Your task to perform on an android device: snooze an email in the gmail app Image 0: 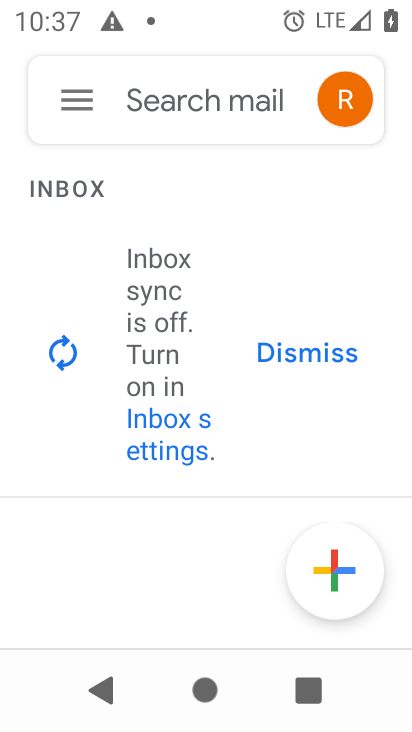
Step 0: press home button
Your task to perform on an android device: snooze an email in the gmail app Image 1: 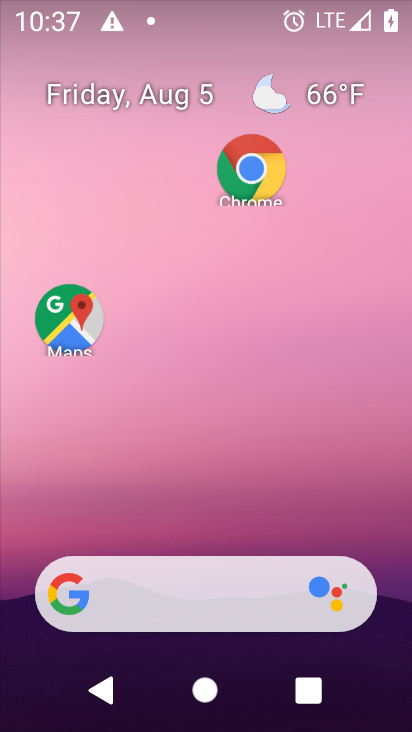
Step 1: drag from (209, 516) to (151, 131)
Your task to perform on an android device: snooze an email in the gmail app Image 2: 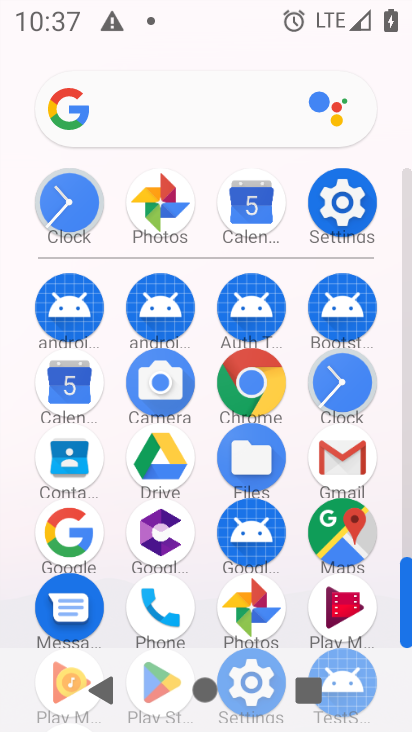
Step 2: click (330, 462)
Your task to perform on an android device: snooze an email in the gmail app Image 3: 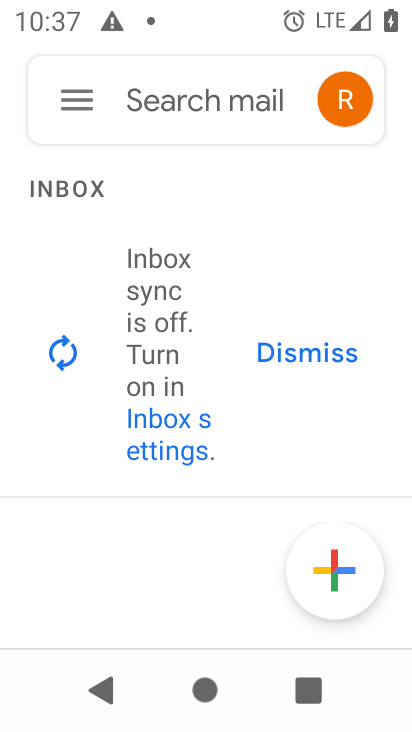
Step 3: click (44, 112)
Your task to perform on an android device: snooze an email in the gmail app Image 4: 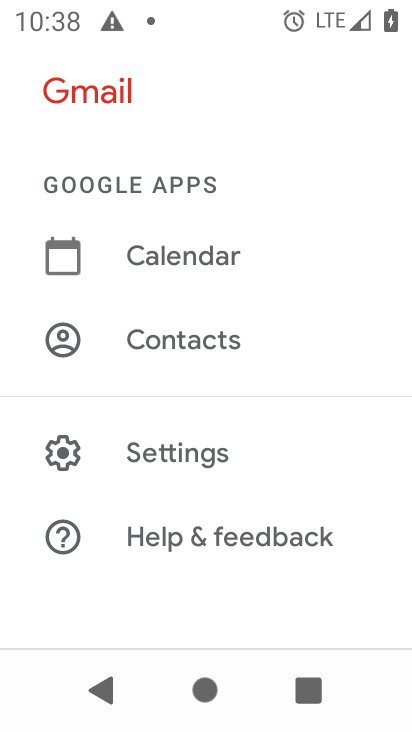
Step 4: task complete